Your task to perform on an android device: turn off javascript in the chrome app Image 0: 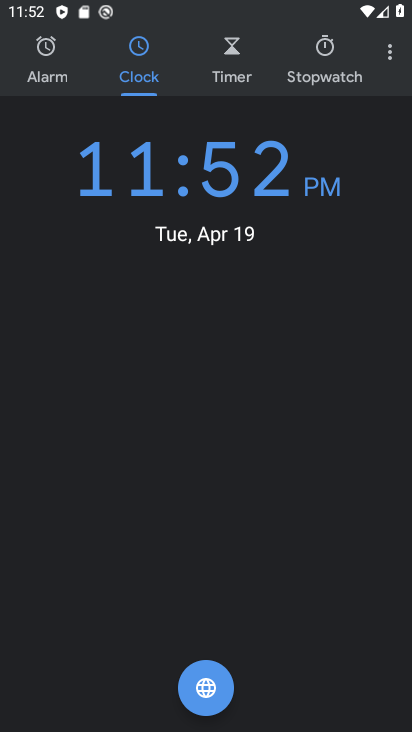
Step 0: press home button
Your task to perform on an android device: turn off javascript in the chrome app Image 1: 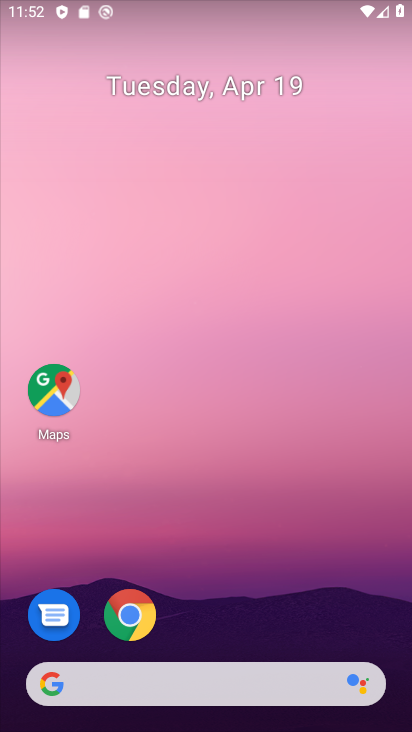
Step 1: drag from (343, 326) to (332, 148)
Your task to perform on an android device: turn off javascript in the chrome app Image 2: 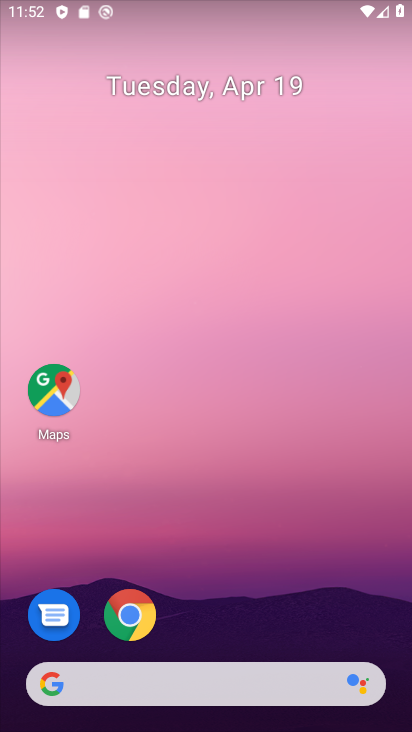
Step 2: click (132, 619)
Your task to perform on an android device: turn off javascript in the chrome app Image 3: 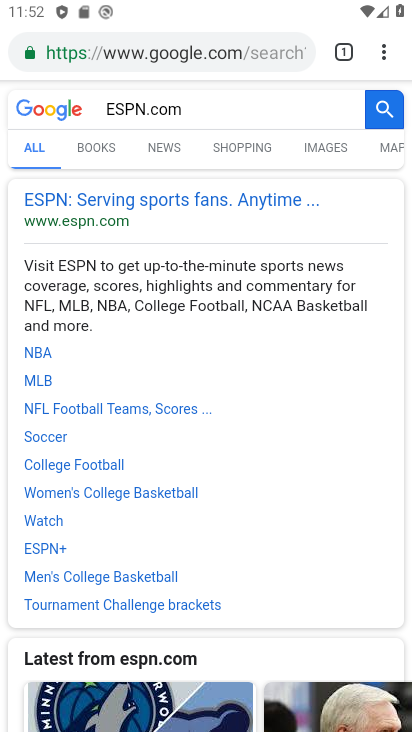
Step 3: click (377, 45)
Your task to perform on an android device: turn off javascript in the chrome app Image 4: 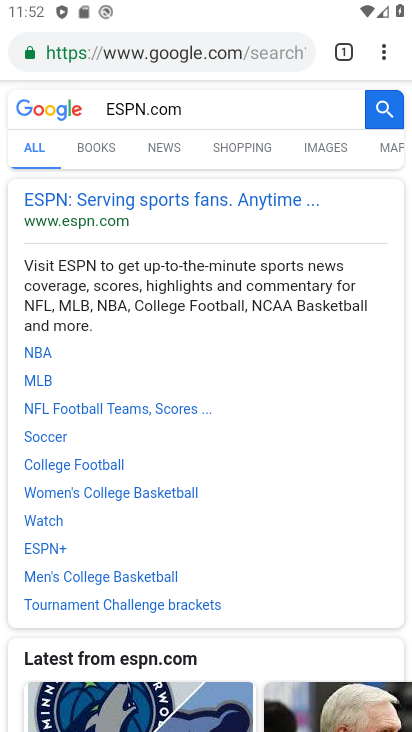
Step 4: click (383, 54)
Your task to perform on an android device: turn off javascript in the chrome app Image 5: 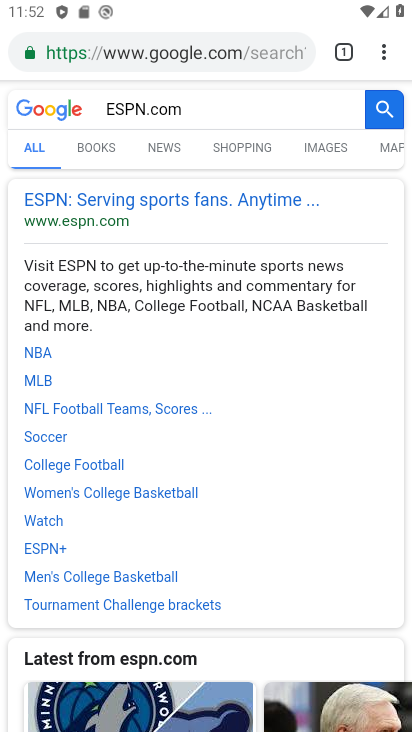
Step 5: click (385, 52)
Your task to perform on an android device: turn off javascript in the chrome app Image 6: 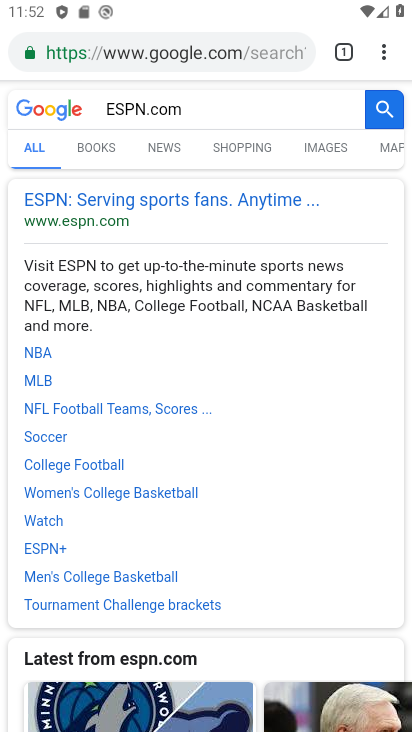
Step 6: click (385, 52)
Your task to perform on an android device: turn off javascript in the chrome app Image 7: 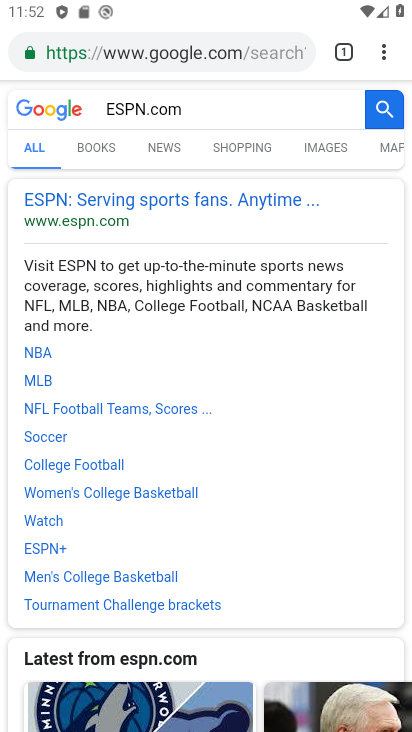
Step 7: click (385, 52)
Your task to perform on an android device: turn off javascript in the chrome app Image 8: 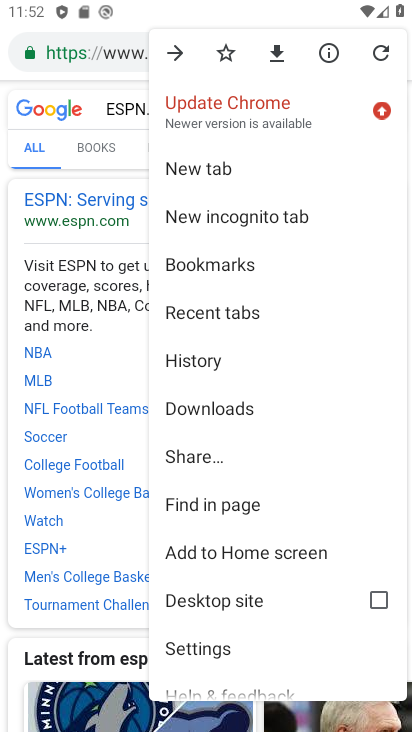
Step 8: click (198, 650)
Your task to perform on an android device: turn off javascript in the chrome app Image 9: 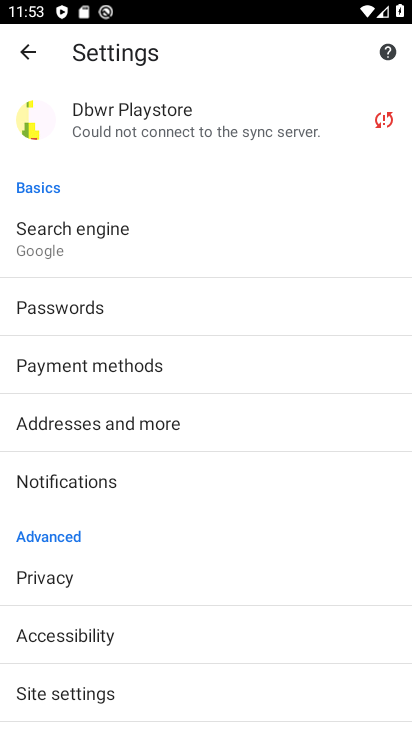
Step 9: click (70, 691)
Your task to perform on an android device: turn off javascript in the chrome app Image 10: 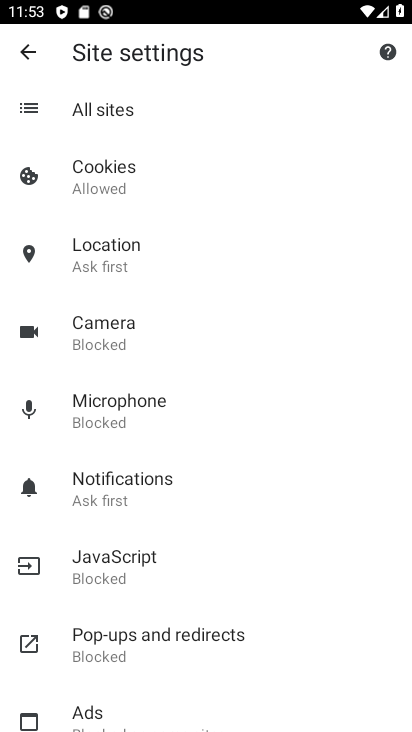
Step 10: click (94, 560)
Your task to perform on an android device: turn off javascript in the chrome app Image 11: 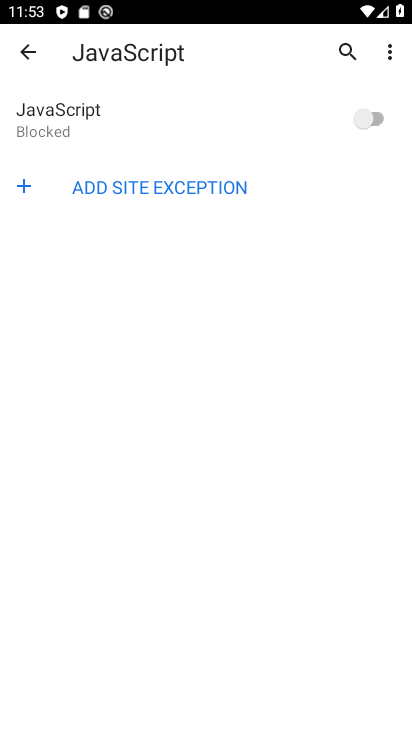
Step 11: task complete